Your task to perform on an android device: Open calendar and show me the third week of next month Image 0: 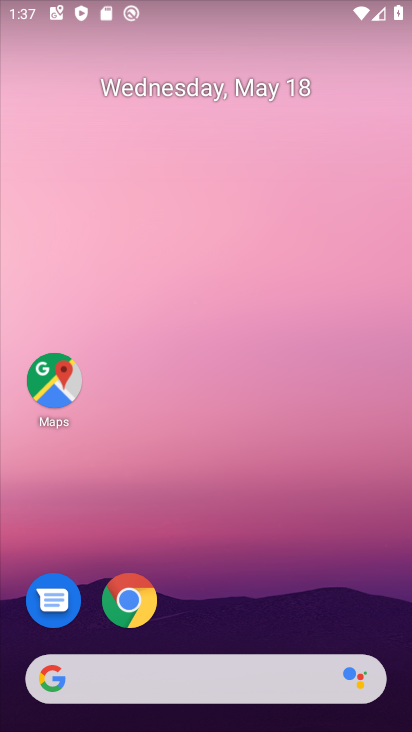
Step 0: drag from (249, 583) to (220, 137)
Your task to perform on an android device: Open calendar and show me the third week of next month Image 1: 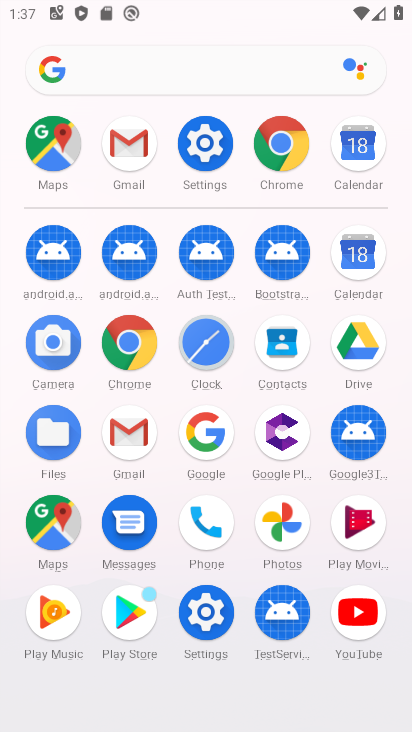
Step 1: click (356, 150)
Your task to perform on an android device: Open calendar and show me the third week of next month Image 2: 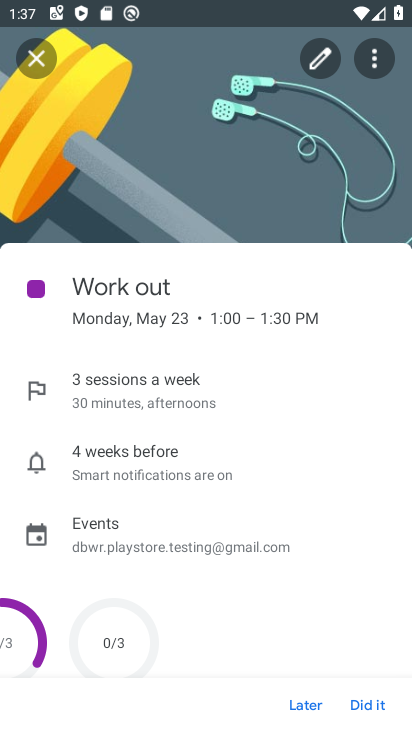
Step 2: click (37, 60)
Your task to perform on an android device: Open calendar and show me the third week of next month Image 3: 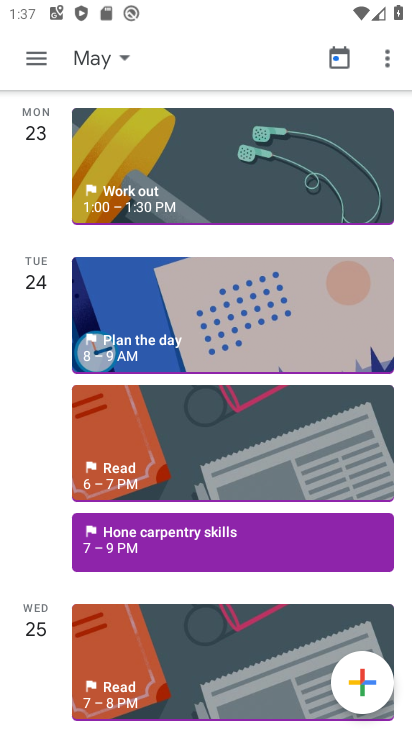
Step 3: click (337, 64)
Your task to perform on an android device: Open calendar and show me the third week of next month Image 4: 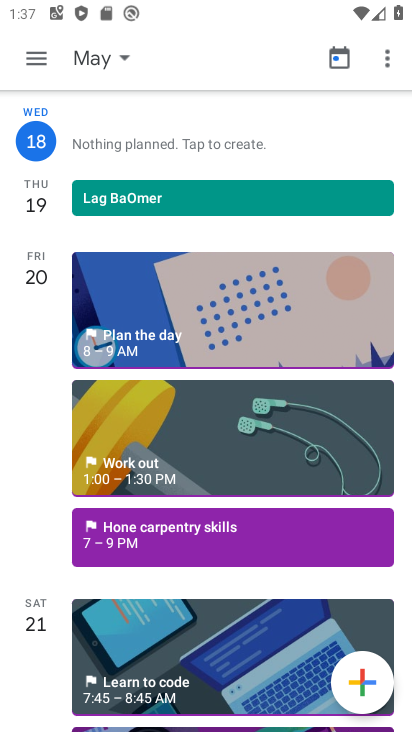
Step 4: click (125, 63)
Your task to perform on an android device: Open calendar and show me the third week of next month Image 5: 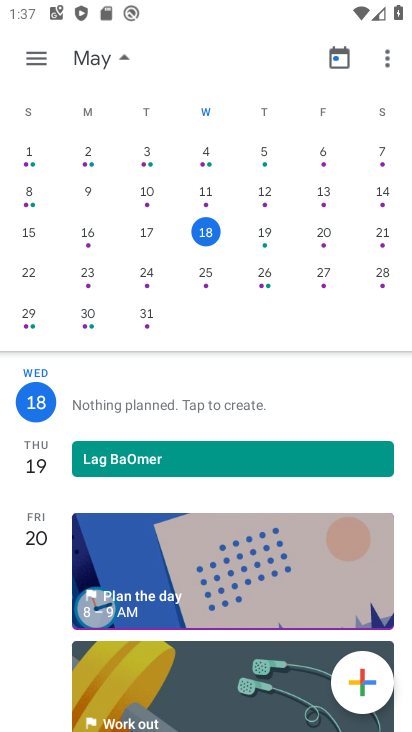
Step 5: drag from (348, 249) to (19, 220)
Your task to perform on an android device: Open calendar and show me the third week of next month Image 6: 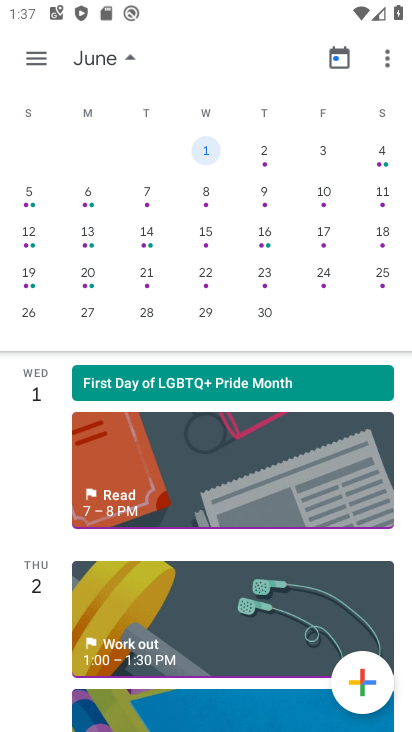
Step 6: click (88, 267)
Your task to perform on an android device: Open calendar and show me the third week of next month Image 7: 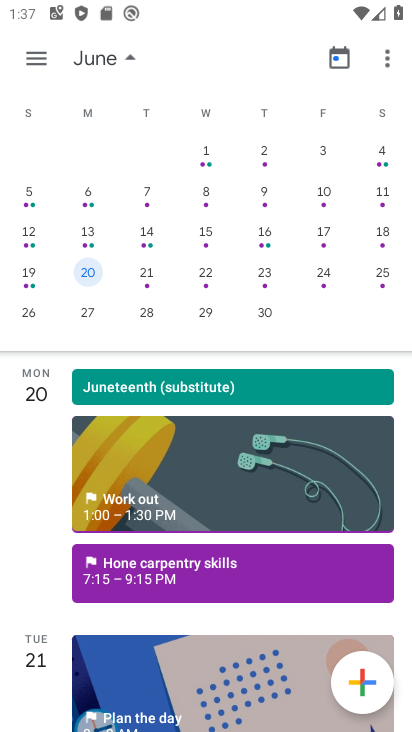
Step 7: click (40, 57)
Your task to perform on an android device: Open calendar and show me the third week of next month Image 8: 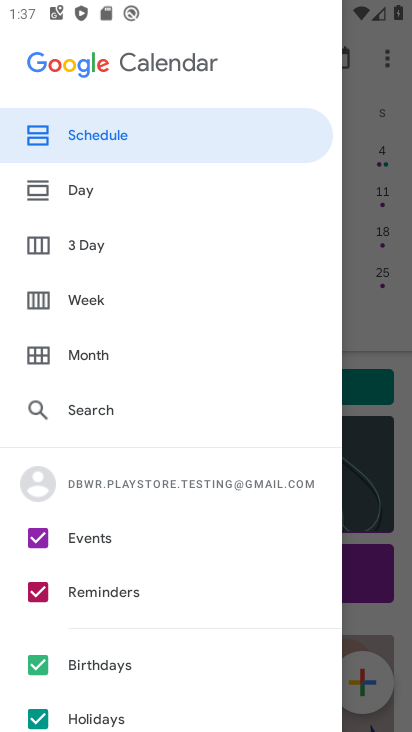
Step 8: click (99, 303)
Your task to perform on an android device: Open calendar and show me the third week of next month Image 9: 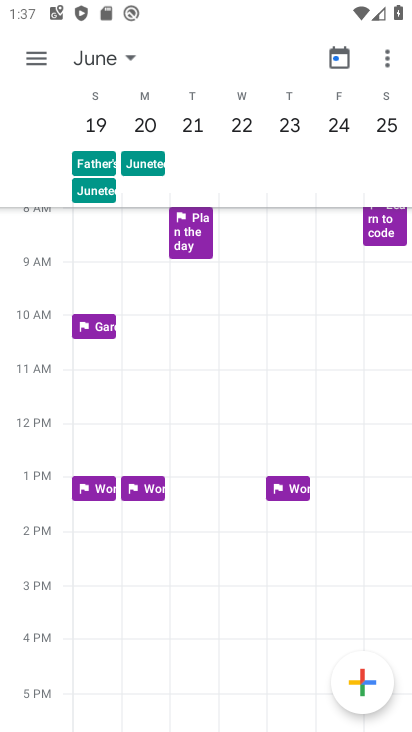
Step 9: task complete